Your task to perform on an android device: Go to location settings Image 0: 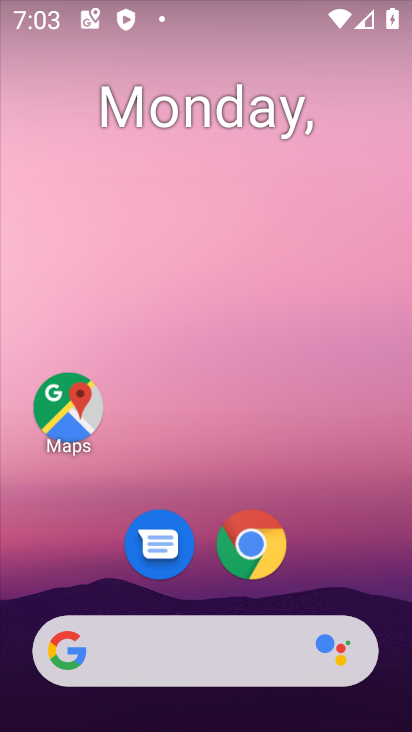
Step 0: drag from (340, 531) to (288, 61)
Your task to perform on an android device: Go to location settings Image 1: 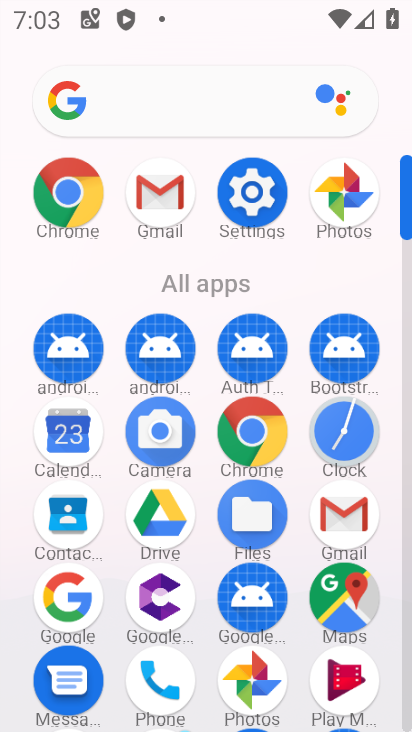
Step 1: click (239, 180)
Your task to perform on an android device: Go to location settings Image 2: 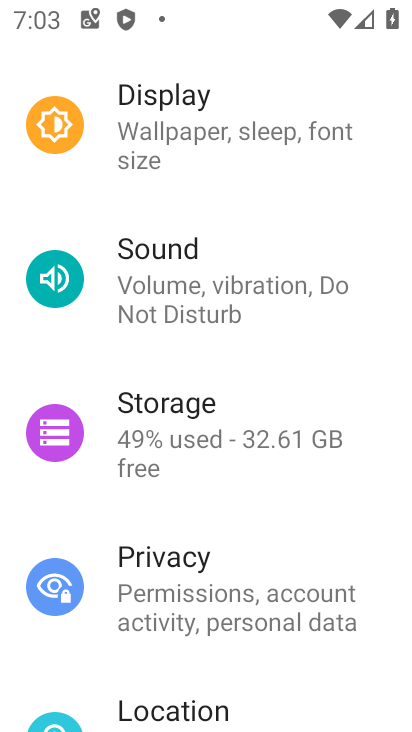
Step 2: click (174, 707)
Your task to perform on an android device: Go to location settings Image 3: 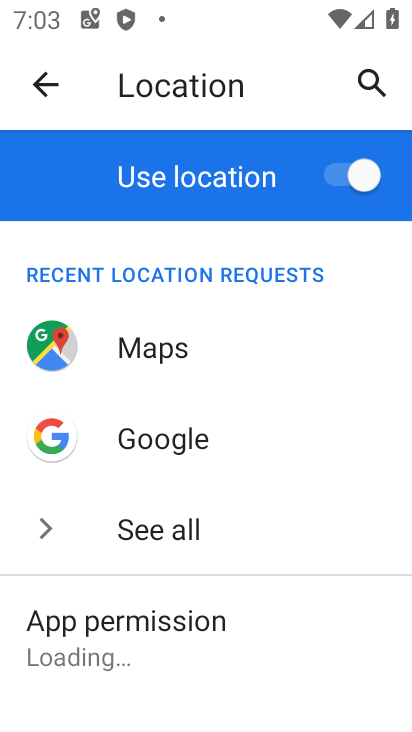
Step 3: task complete